Your task to perform on an android device: Toggle the flashlight Image 0: 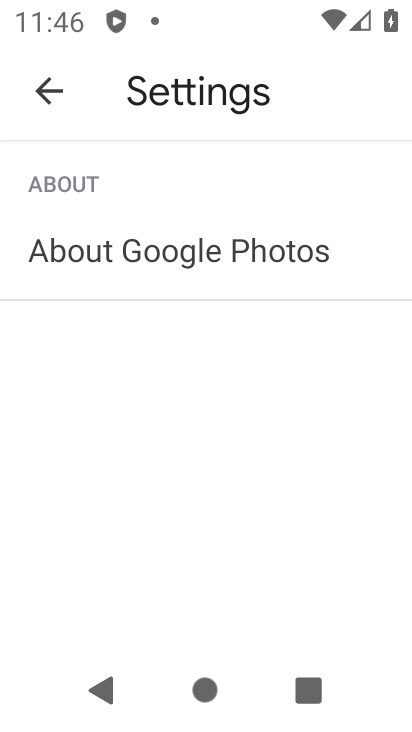
Step 0: press home button
Your task to perform on an android device: Toggle the flashlight Image 1: 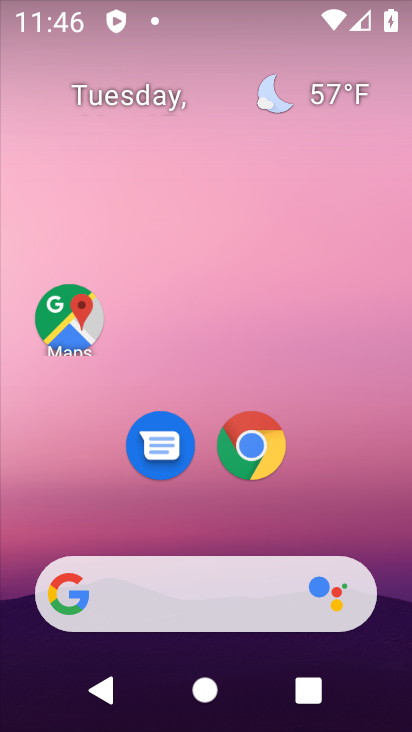
Step 1: drag from (224, 9) to (178, 460)
Your task to perform on an android device: Toggle the flashlight Image 2: 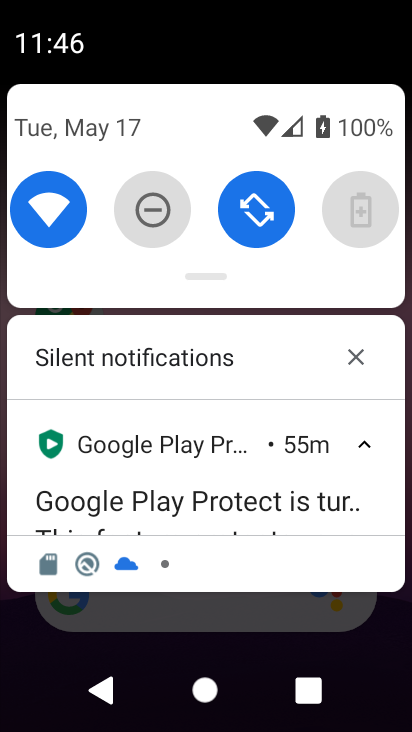
Step 2: drag from (202, 147) to (210, 467)
Your task to perform on an android device: Toggle the flashlight Image 3: 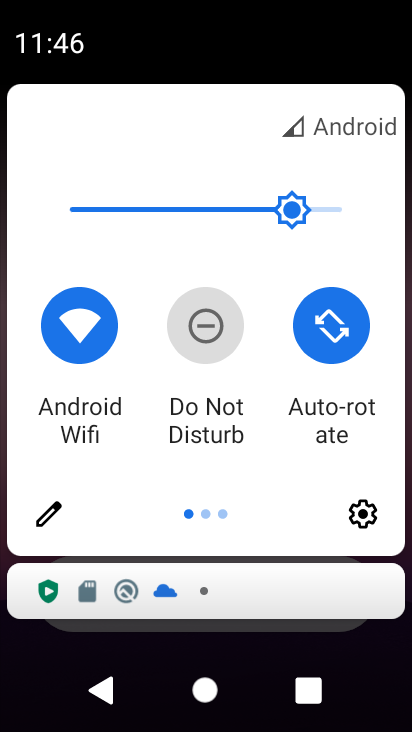
Step 3: click (57, 513)
Your task to perform on an android device: Toggle the flashlight Image 4: 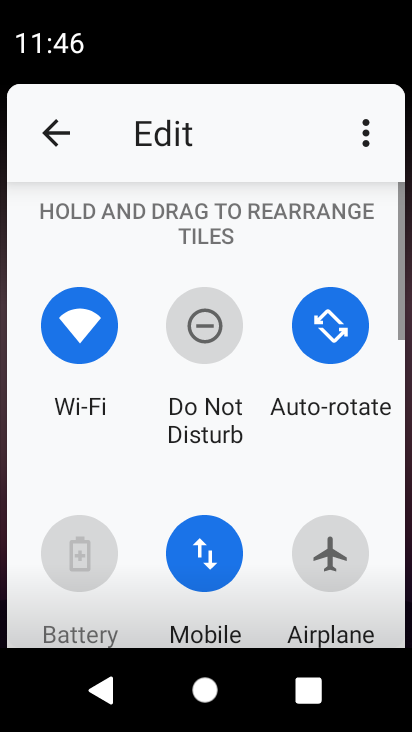
Step 4: task complete